Your task to perform on an android device: Go to settings Image 0: 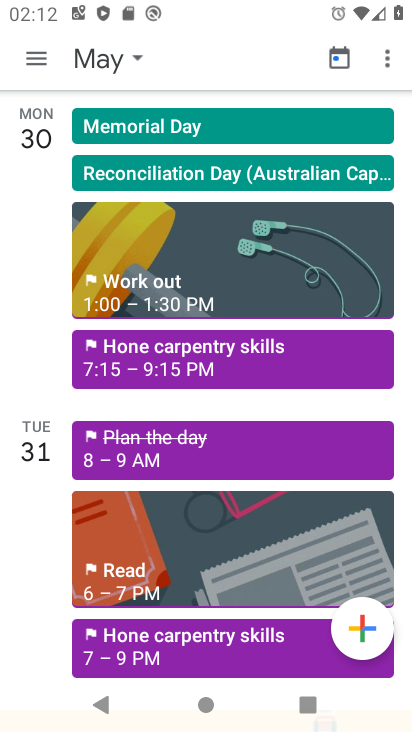
Step 0: press home button
Your task to perform on an android device: Go to settings Image 1: 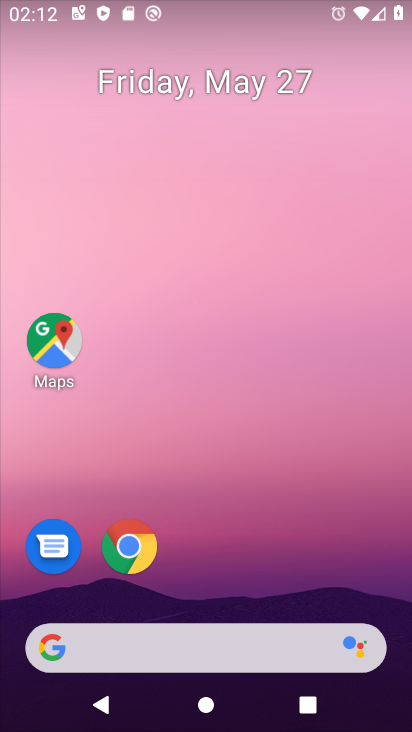
Step 1: drag from (236, 667) to (269, 222)
Your task to perform on an android device: Go to settings Image 2: 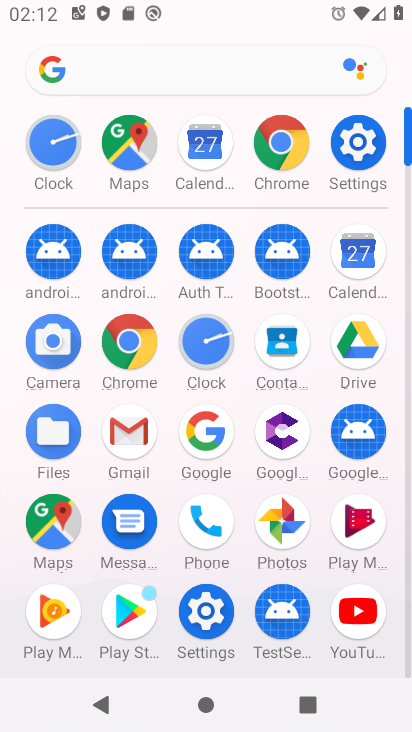
Step 2: click (351, 146)
Your task to perform on an android device: Go to settings Image 3: 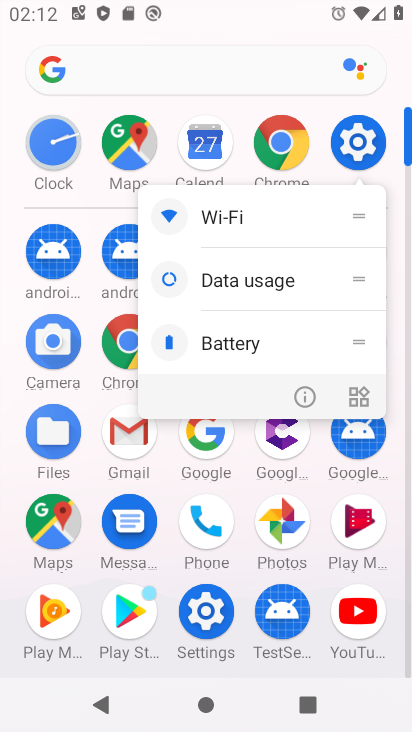
Step 3: click (364, 150)
Your task to perform on an android device: Go to settings Image 4: 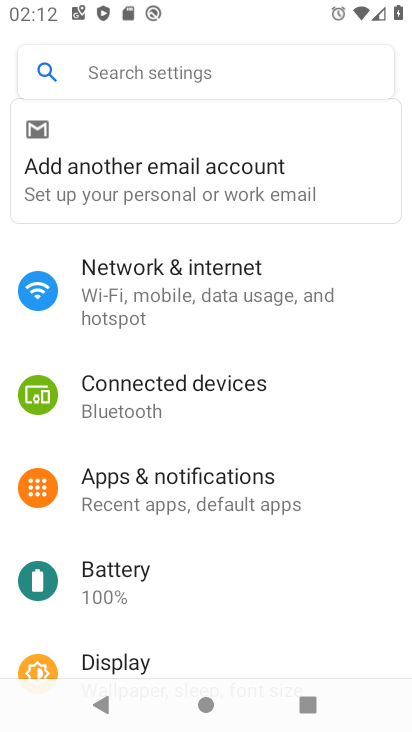
Step 4: click (177, 492)
Your task to perform on an android device: Go to settings Image 5: 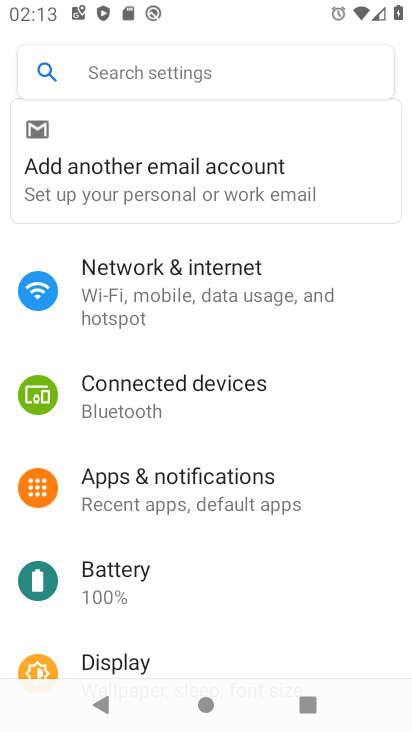
Step 5: task complete